Your task to perform on an android device: View the shopping cart on bestbuy. Add macbook air to the cart on bestbuy, then select checkout. Image 0: 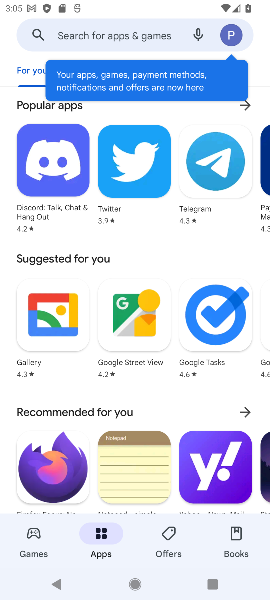
Step 0: press home button
Your task to perform on an android device: View the shopping cart on bestbuy. Add macbook air to the cart on bestbuy, then select checkout. Image 1: 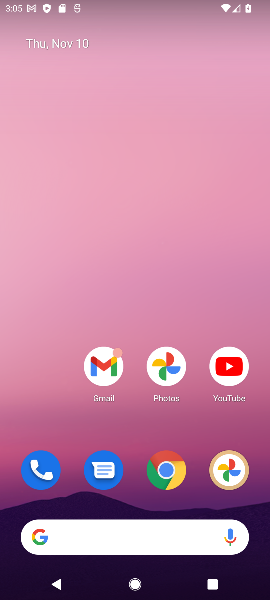
Step 1: click (164, 475)
Your task to perform on an android device: View the shopping cart on bestbuy. Add macbook air to the cart on bestbuy, then select checkout. Image 2: 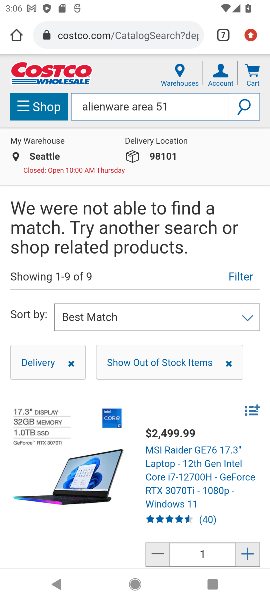
Step 2: click (218, 36)
Your task to perform on an android device: View the shopping cart on bestbuy. Add macbook air to the cart on bestbuy, then select checkout. Image 3: 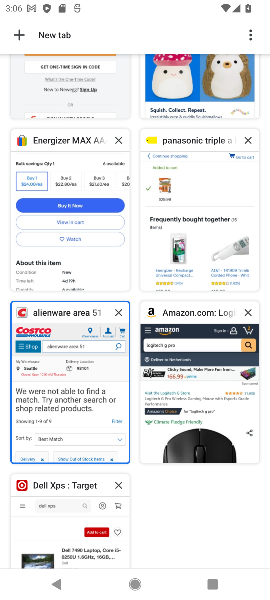
Step 3: click (181, 185)
Your task to perform on an android device: View the shopping cart on bestbuy. Add macbook air to the cart on bestbuy, then select checkout. Image 4: 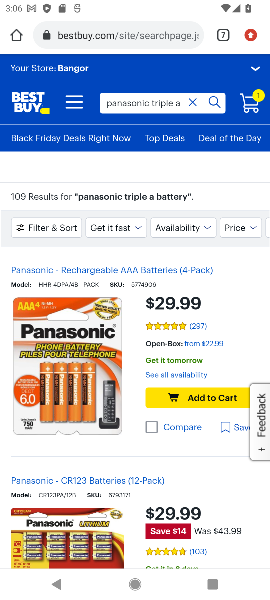
Step 4: click (124, 102)
Your task to perform on an android device: View the shopping cart on bestbuy. Add macbook air to the cart on bestbuy, then select checkout. Image 5: 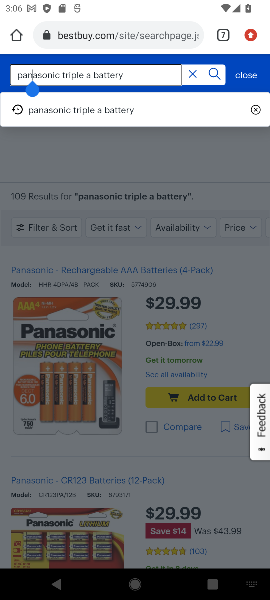
Step 5: click (191, 78)
Your task to perform on an android device: View the shopping cart on bestbuy. Add macbook air to the cart on bestbuy, then select checkout. Image 6: 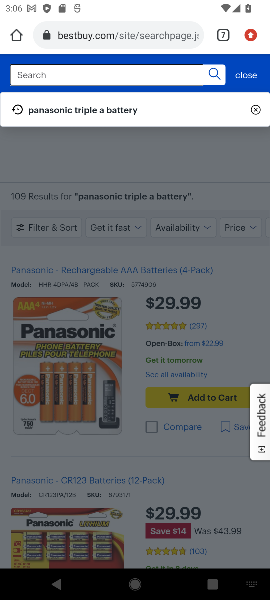
Step 6: type "macbook air"
Your task to perform on an android device: View the shopping cart on bestbuy. Add macbook air to the cart on bestbuy, then select checkout. Image 7: 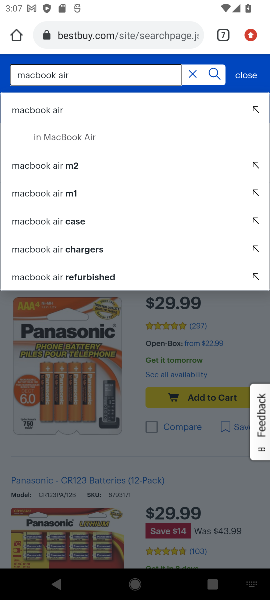
Step 7: click (15, 108)
Your task to perform on an android device: View the shopping cart on bestbuy. Add macbook air to the cart on bestbuy, then select checkout. Image 8: 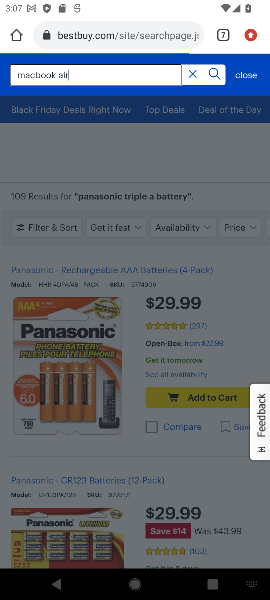
Step 8: click (214, 73)
Your task to perform on an android device: View the shopping cart on bestbuy. Add macbook air to the cart on bestbuy, then select checkout. Image 9: 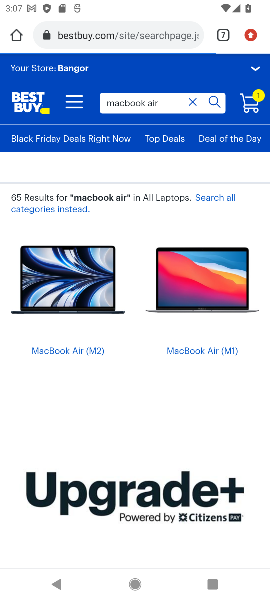
Step 9: click (175, 351)
Your task to perform on an android device: View the shopping cart on bestbuy. Add macbook air to the cart on bestbuy, then select checkout. Image 10: 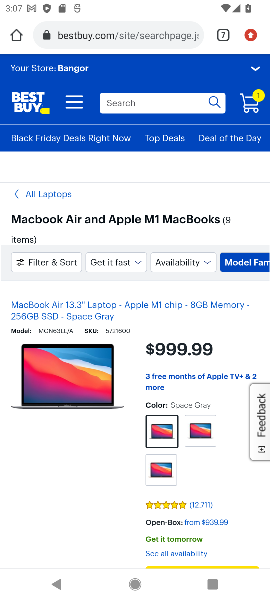
Step 10: drag from (214, 554) to (222, 449)
Your task to perform on an android device: View the shopping cart on bestbuy. Add macbook air to the cart on bestbuy, then select checkout. Image 11: 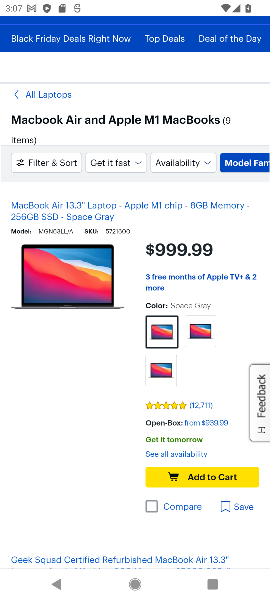
Step 11: click (219, 477)
Your task to perform on an android device: View the shopping cart on bestbuy. Add macbook air to the cart on bestbuy, then select checkout. Image 12: 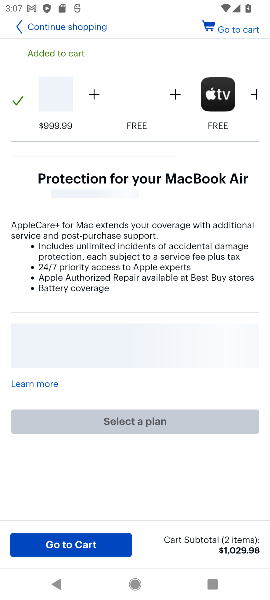
Step 12: click (75, 540)
Your task to perform on an android device: View the shopping cart on bestbuy. Add macbook air to the cart on bestbuy, then select checkout. Image 13: 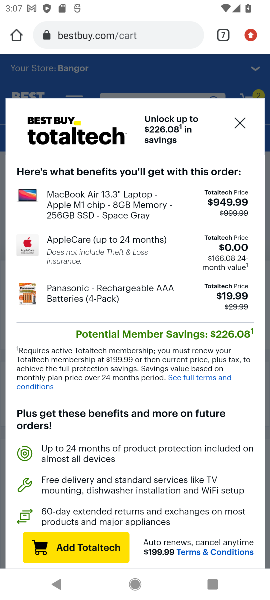
Step 13: click (240, 125)
Your task to perform on an android device: View the shopping cart on bestbuy. Add macbook air to the cart on bestbuy, then select checkout. Image 14: 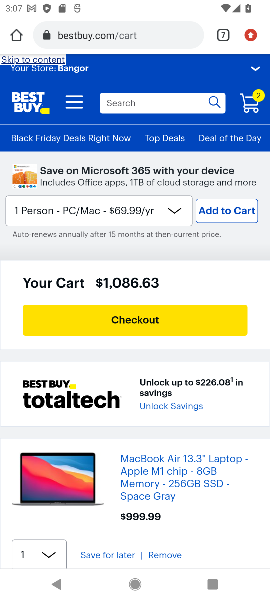
Step 14: task complete